Your task to perform on an android device: turn on notifications settings in the gmail app Image 0: 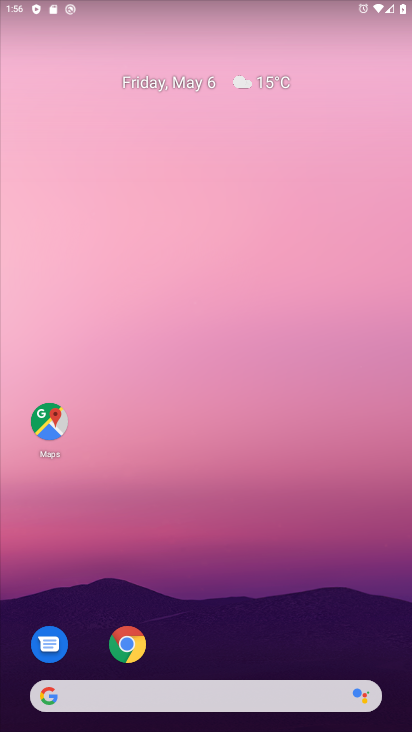
Step 0: drag from (243, 627) to (196, 325)
Your task to perform on an android device: turn on notifications settings in the gmail app Image 1: 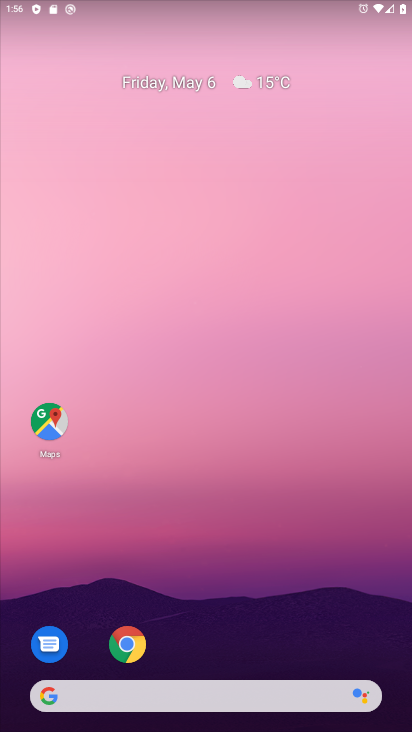
Step 1: drag from (260, 429) to (253, 148)
Your task to perform on an android device: turn on notifications settings in the gmail app Image 2: 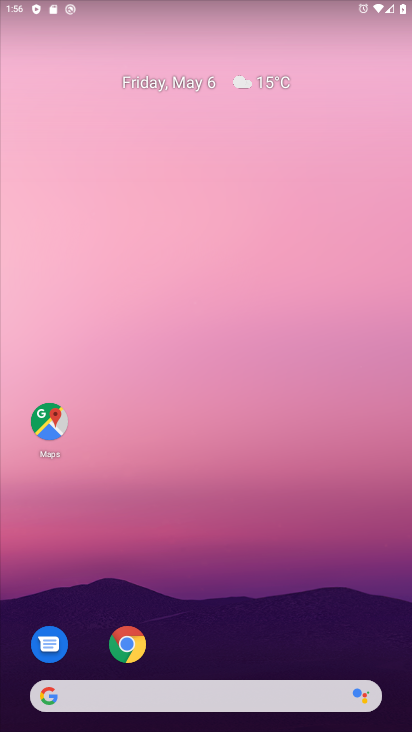
Step 2: drag from (245, 614) to (240, 87)
Your task to perform on an android device: turn on notifications settings in the gmail app Image 3: 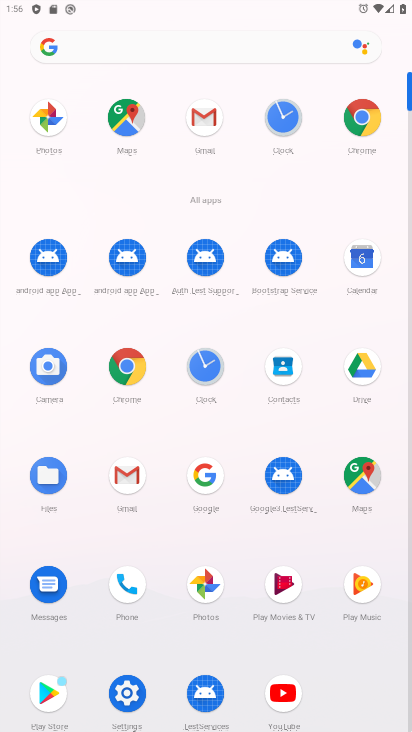
Step 3: click (207, 113)
Your task to perform on an android device: turn on notifications settings in the gmail app Image 4: 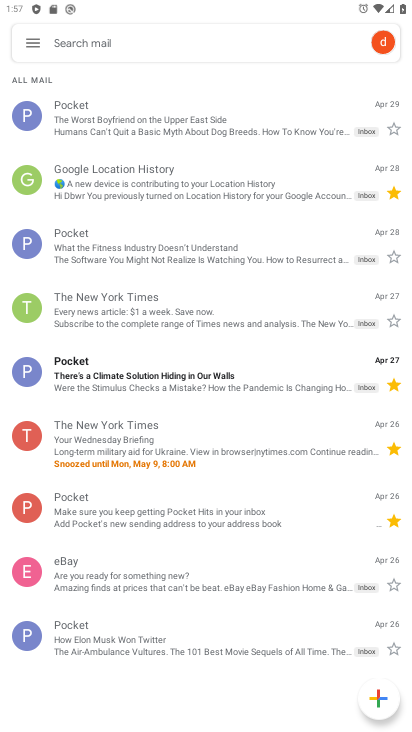
Step 4: click (39, 45)
Your task to perform on an android device: turn on notifications settings in the gmail app Image 5: 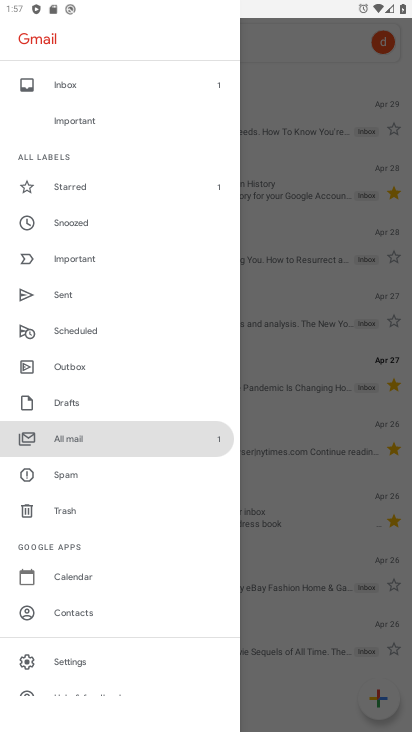
Step 5: click (123, 655)
Your task to perform on an android device: turn on notifications settings in the gmail app Image 6: 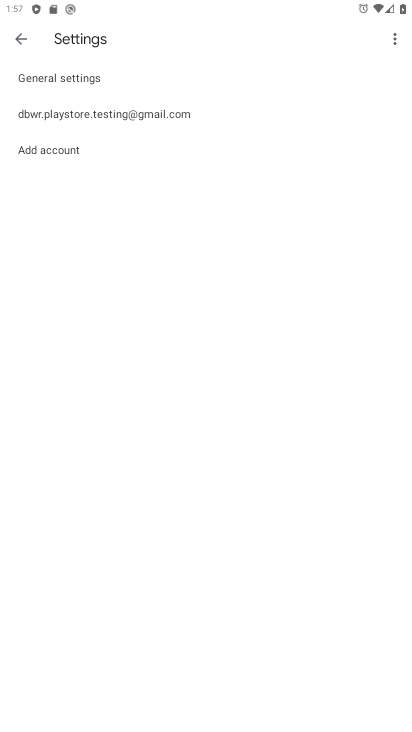
Step 6: click (244, 112)
Your task to perform on an android device: turn on notifications settings in the gmail app Image 7: 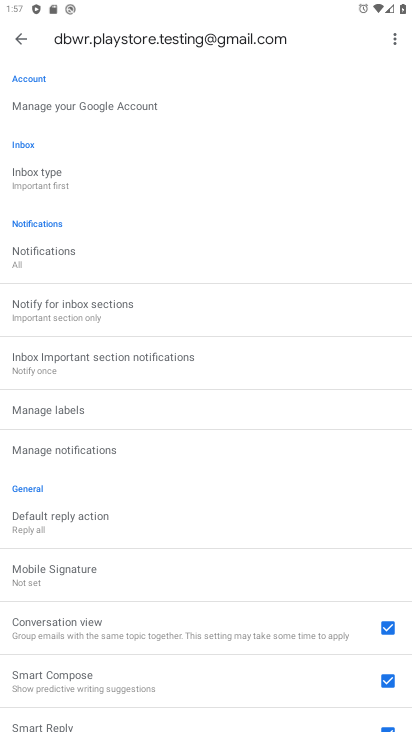
Step 7: click (197, 459)
Your task to perform on an android device: turn on notifications settings in the gmail app Image 8: 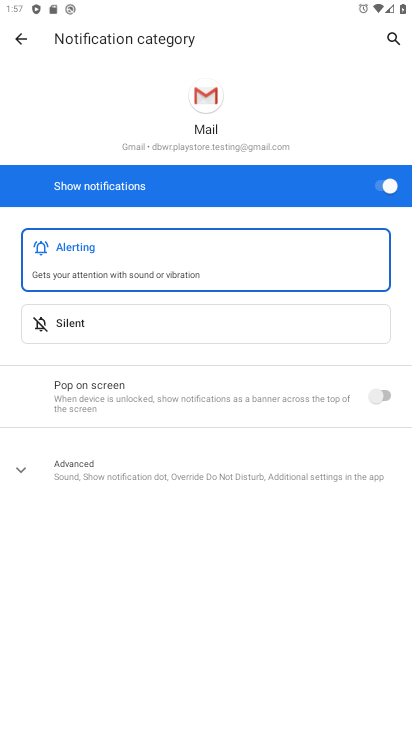
Step 8: click (386, 382)
Your task to perform on an android device: turn on notifications settings in the gmail app Image 9: 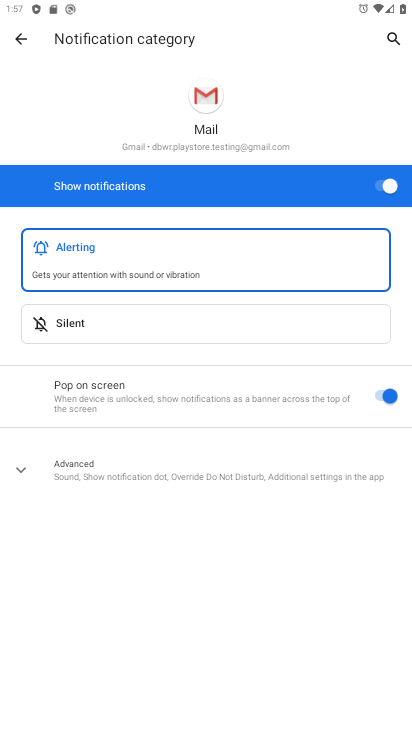
Step 9: task complete